Your task to perform on an android device: Open wifi settings Image 0: 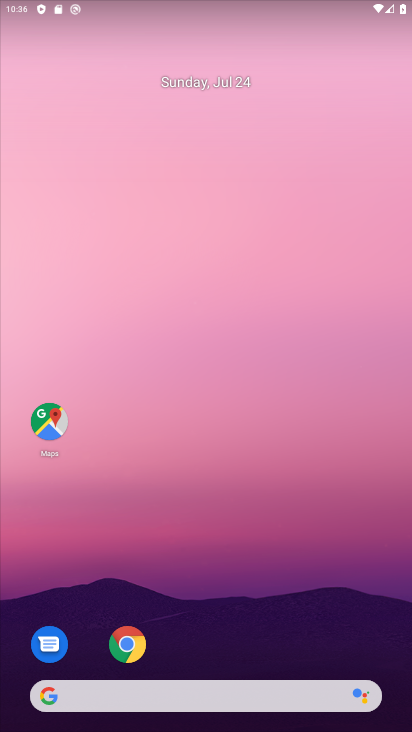
Step 0: drag from (226, 668) to (319, 32)
Your task to perform on an android device: Open wifi settings Image 1: 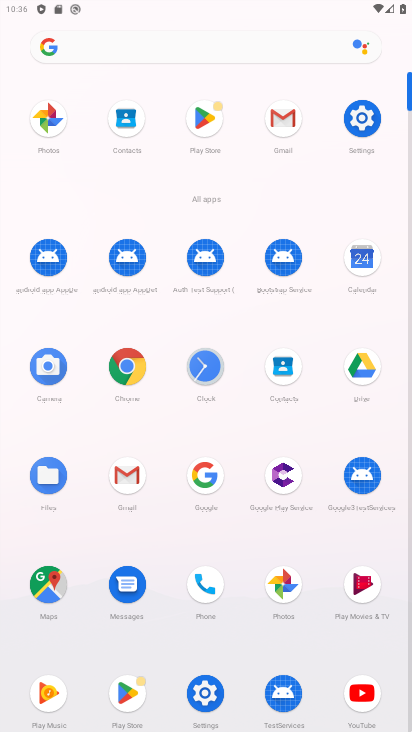
Step 1: click (354, 123)
Your task to perform on an android device: Open wifi settings Image 2: 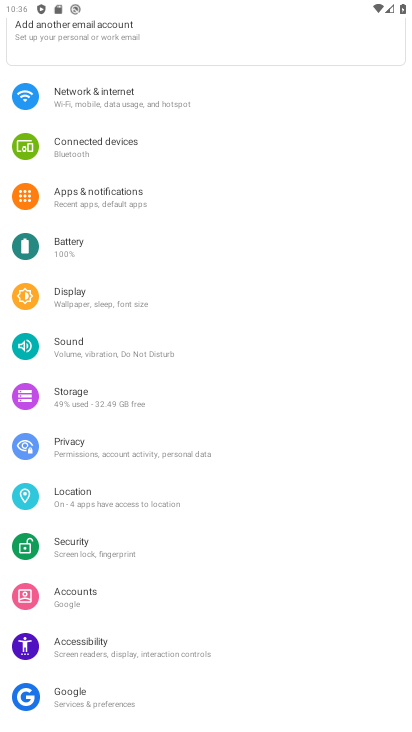
Step 2: click (103, 108)
Your task to perform on an android device: Open wifi settings Image 3: 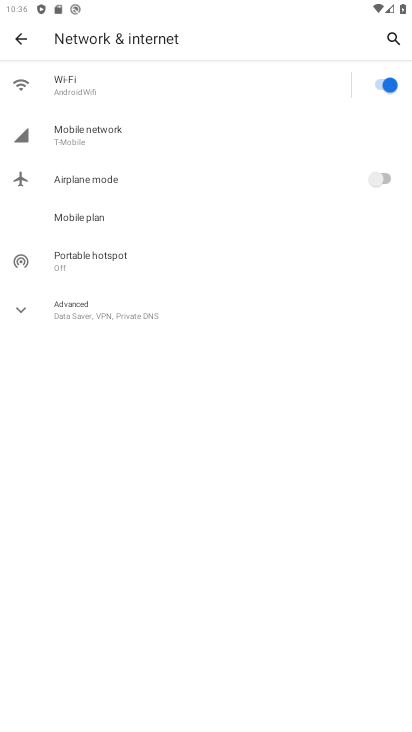
Step 3: click (52, 87)
Your task to perform on an android device: Open wifi settings Image 4: 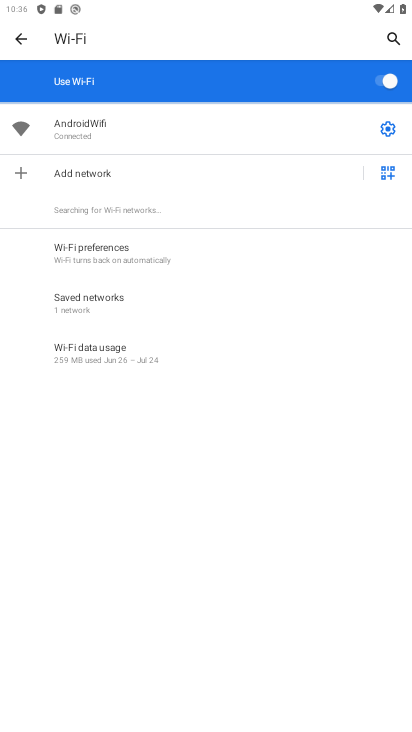
Step 4: click (392, 128)
Your task to perform on an android device: Open wifi settings Image 5: 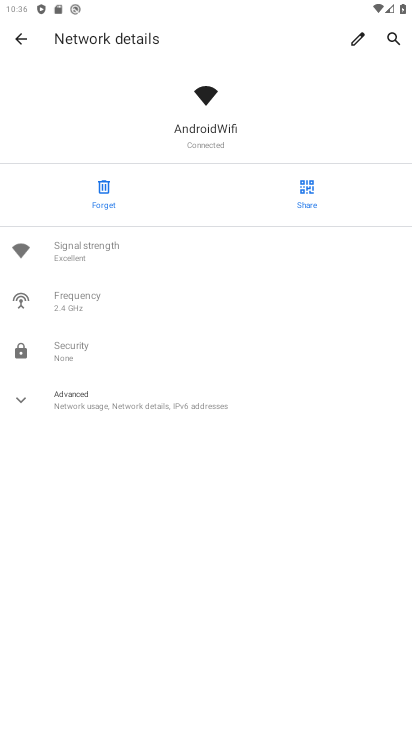
Step 5: task complete